Your task to perform on an android device: turn on improve location accuracy Image 0: 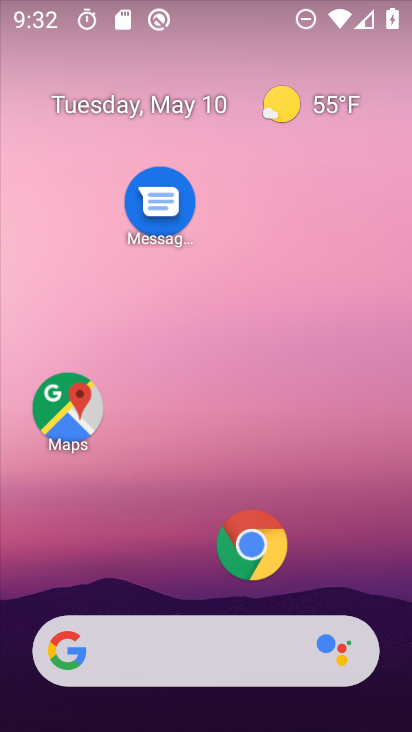
Step 0: drag from (158, 580) to (227, 198)
Your task to perform on an android device: turn on improve location accuracy Image 1: 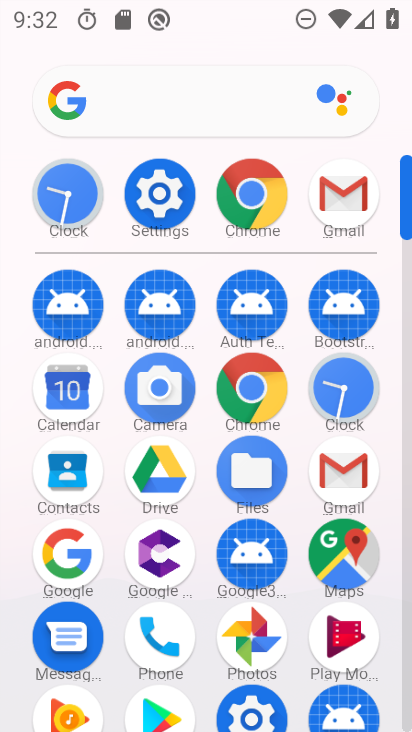
Step 1: click (164, 199)
Your task to perform on an android device: turn on improve location accuracy Image 2: 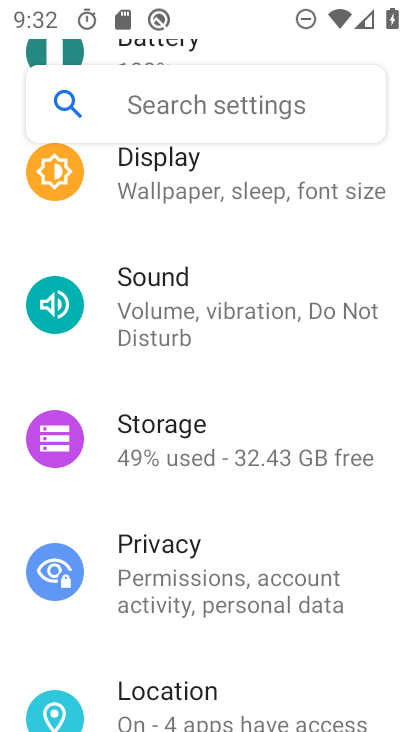
Step 2: click (239, 676)
Your task to perform on an android device: turn on improve location accuracy Image 3: 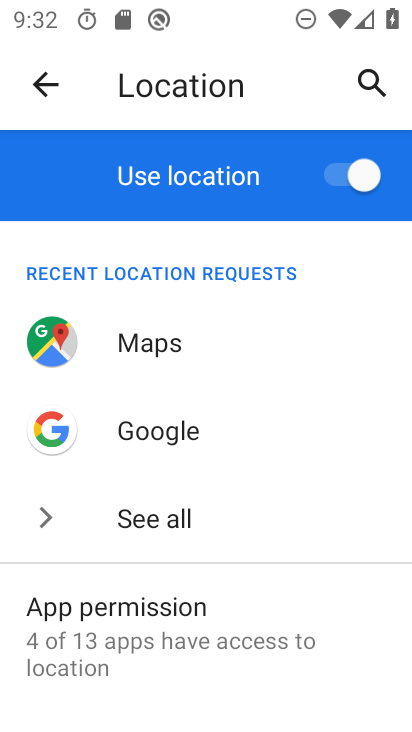
Step 3: drag from (209, 635) to (210, 333)
Your task to perform on an android device: turn on improve location accuracy Image 4: 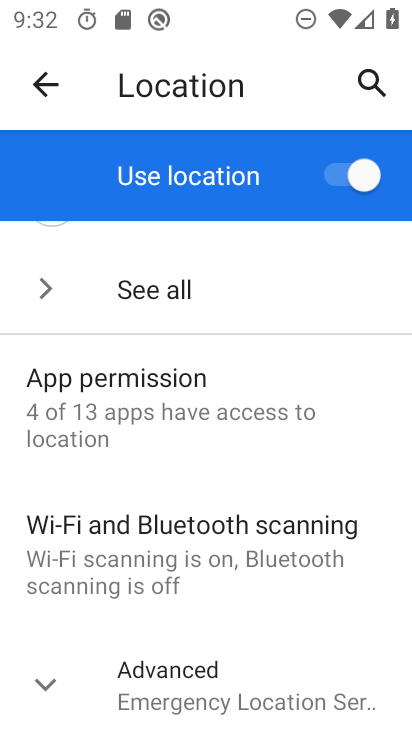
Step 4: drag from (231, 658) to (238, 420)
Your task to perform on an android device: turn on improve location accuracy Image 5: 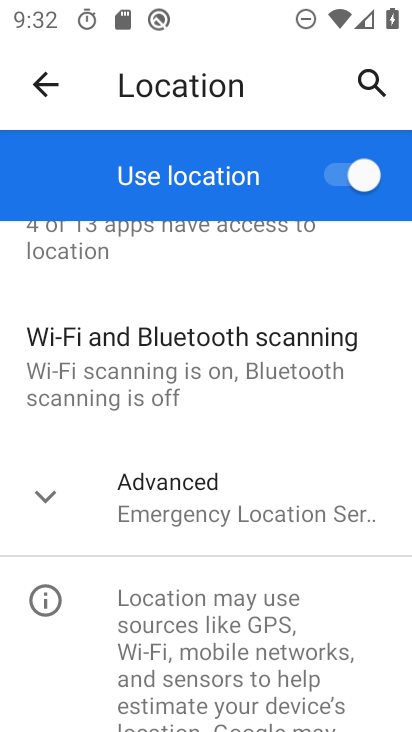
Step 5: click (156, 493)
Your task to perform on an android device: turn on improve location accuracy Image 6: 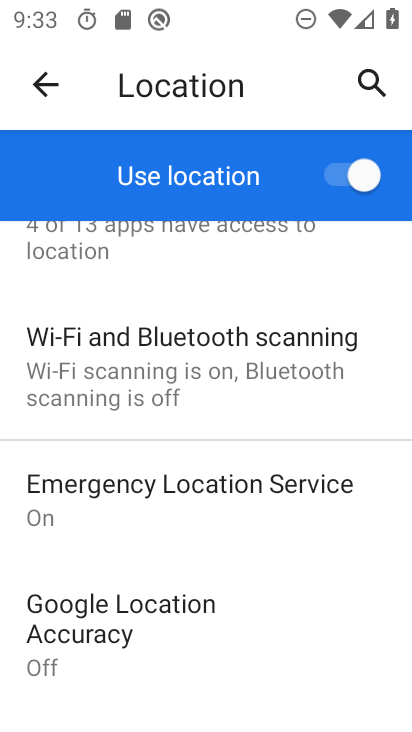
Step 6: click (191, 613)
Your task to perform on an android device: turn on improve location accuracy Image 7: 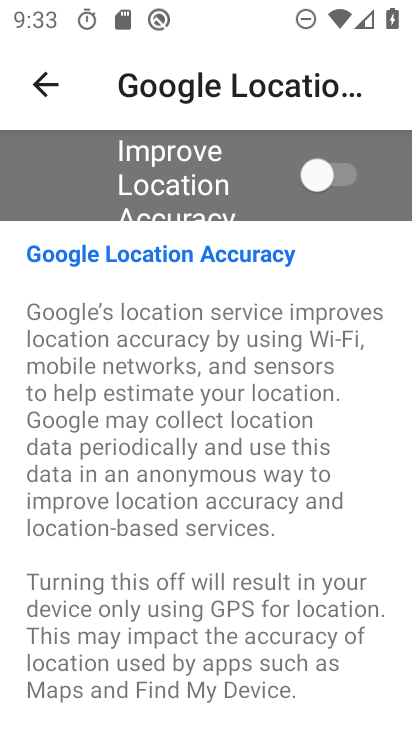
Step 7: drag from (246, 629) to (276, 363)
Your task to perform on an android device: turn on improve location accuracy Image 8: 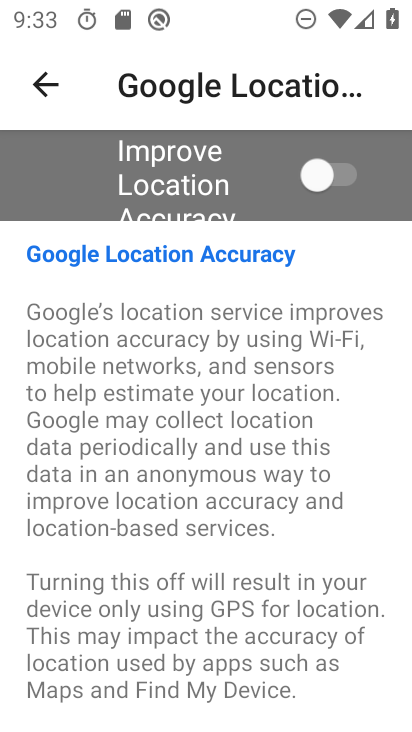
Step 8: click (328, 160)
Your task to perform on an android device: turn on improve location accuracy Image 9: 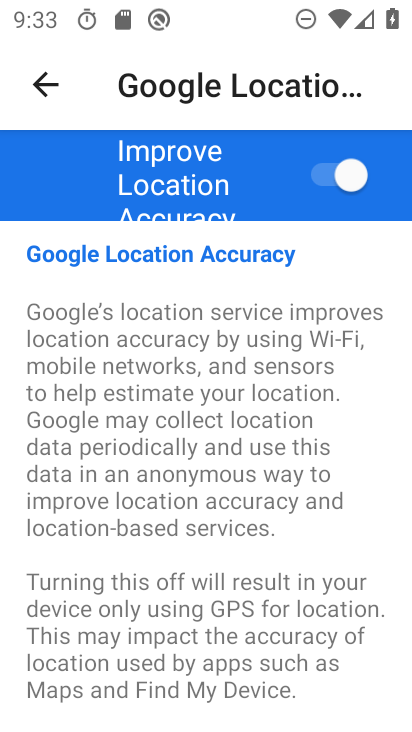
Step 9: task complete